Your task to perform on an android device: search for starred emails in the gmail app Image 0: 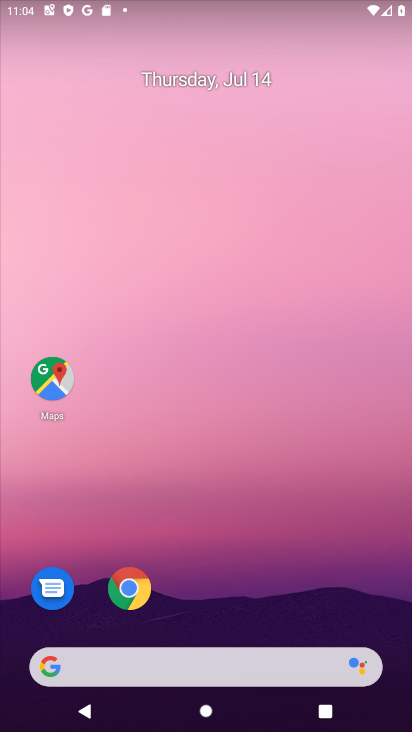
Step 0: drag from (176, 662) to (279, 109)
Your task to perform on an android device: search for starred emails in the gmail app Image 1: 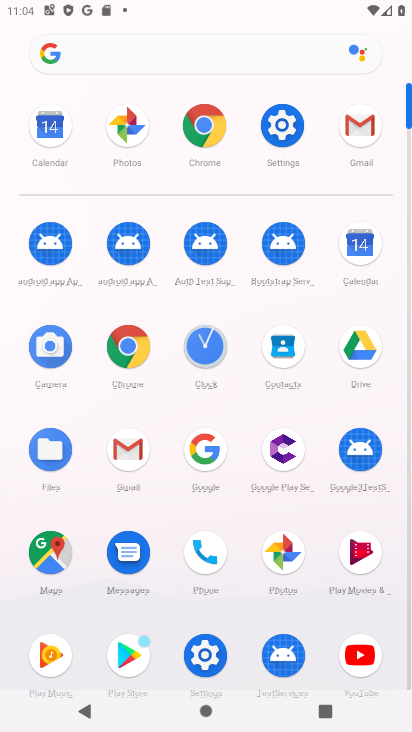
Step 1: click (360, 121)
Your task to perform on an android device: search for starred emails in the gmail app Image 2: 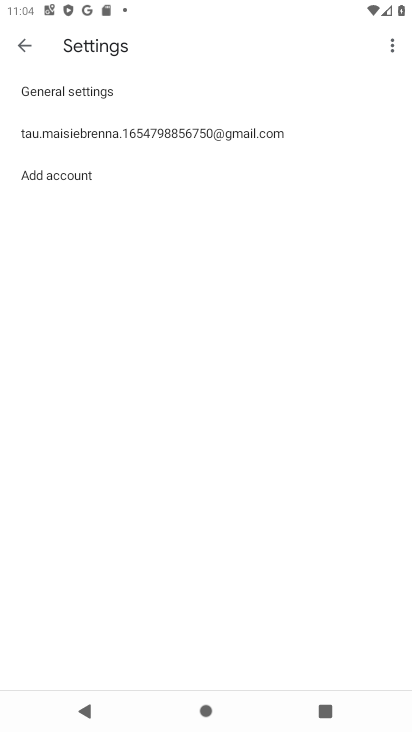
Step 2: click (28, 46)
Your task to perform on an android device: search for starred emails in the gmail app Image 3: 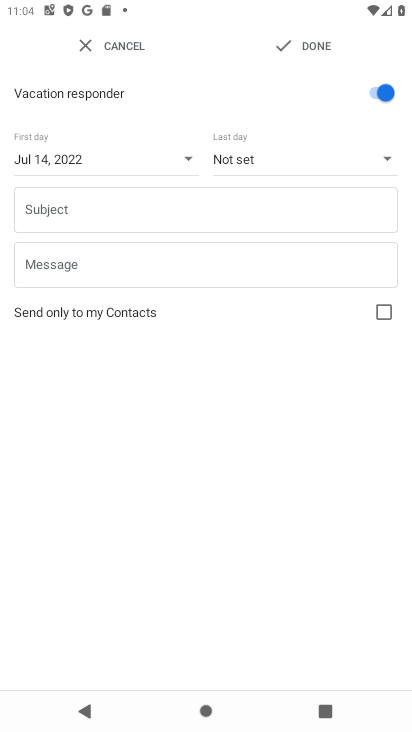
Step 3: press back button
Your task to perform on an android device: search for starred emails in the gmail app Image 4: 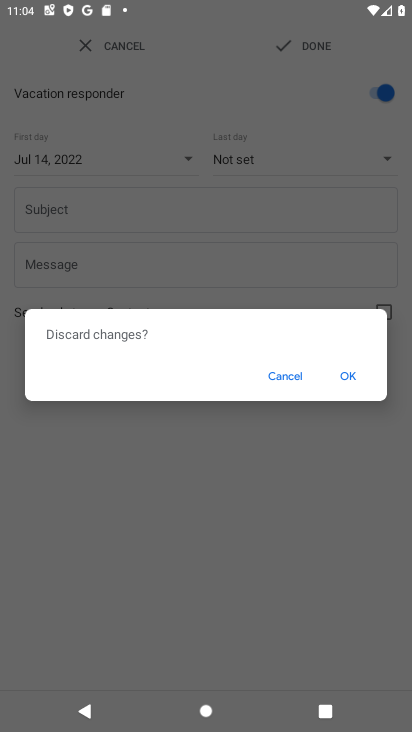
Step 4: click (292, 378)
Your task to perform on an android device: search for starred emails in the gmail app Image 5: 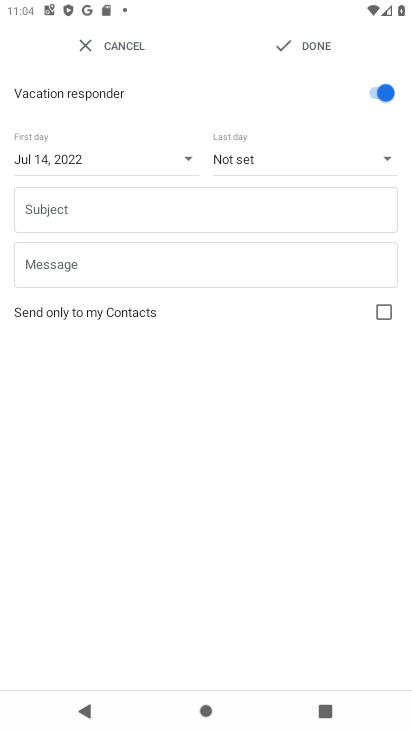
Step 5: press back button
Your task to perform on an android device: search for starred emails in the gmail app Image 6: 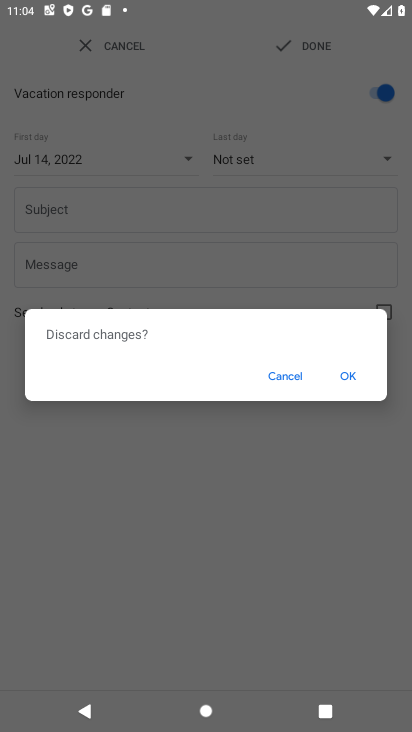
Step 6: click (351, 378)
Your task to perform on an android device: search for starred emails in the gmail app Image 7: 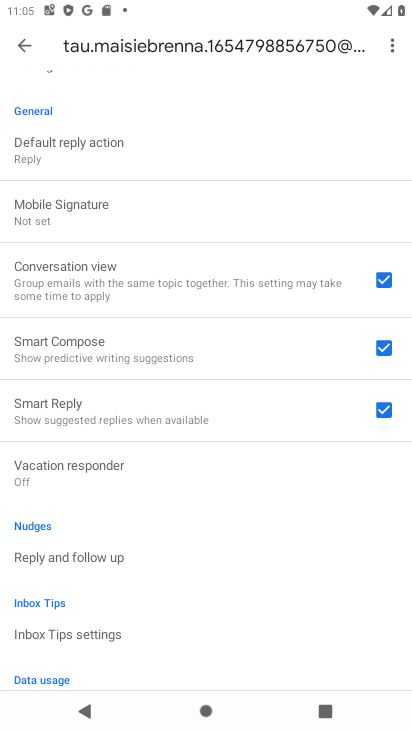
Step 7: click (17, 45)
Your task to perform on an android device: search for starred emails in the gmail app Image 8: 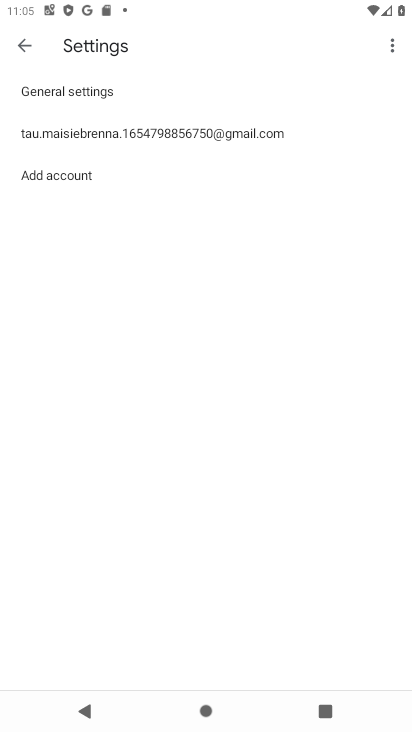
Step 8: click (24, 45)
Your task to perform on an android device: search for starred emails in the gmail app Image 9: 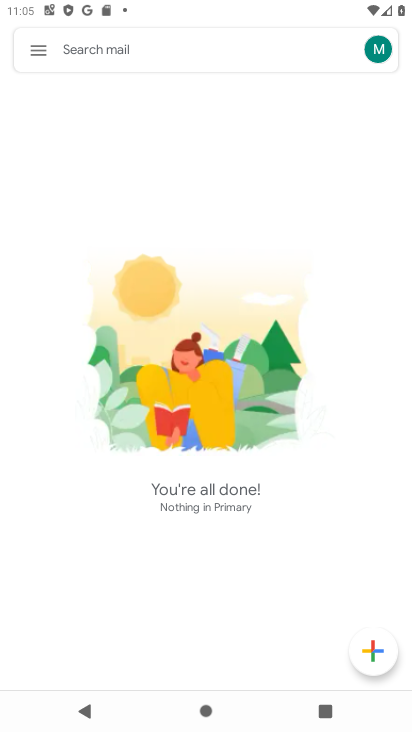
Step 9: click (37, 55)
Your task to perform on an android device: search for starred emails in the gmail app Image 10: 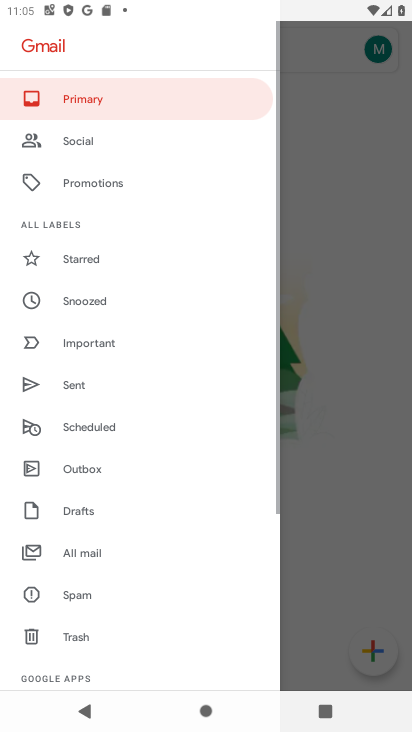
Step 10: click (75, 259)
Your task to perform on an android device: search for starred emails in the gmail app Image 11: 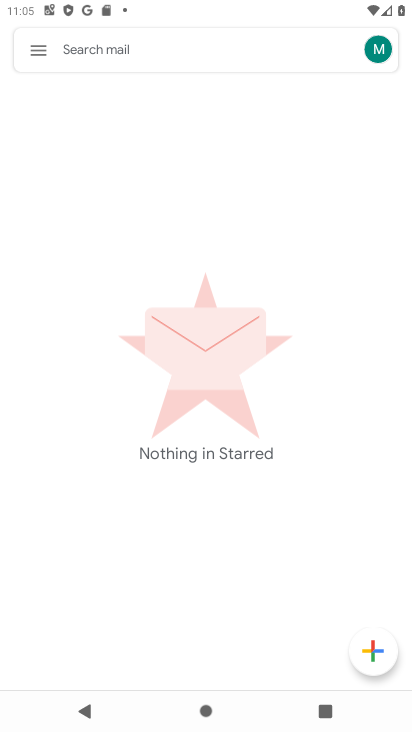
Step 11: task complete